Your task to perform on an android device: Open calendar and show me the third week of next month Image 0: 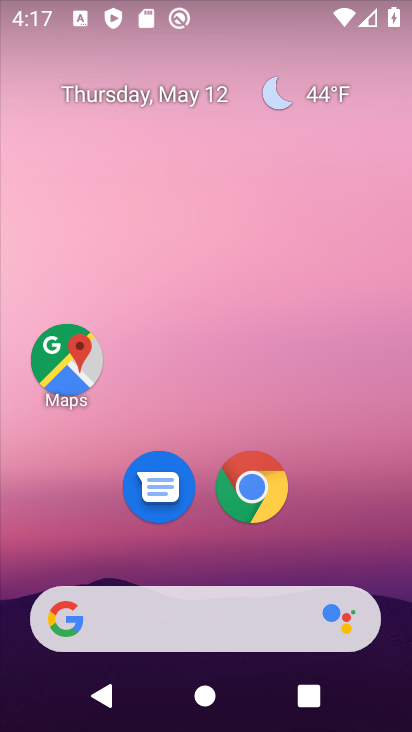
Step 0: drag from (268, 558) to (307, 127)
Your task to perform on an android device: Open calendar and show me the third week of next month Image 1: 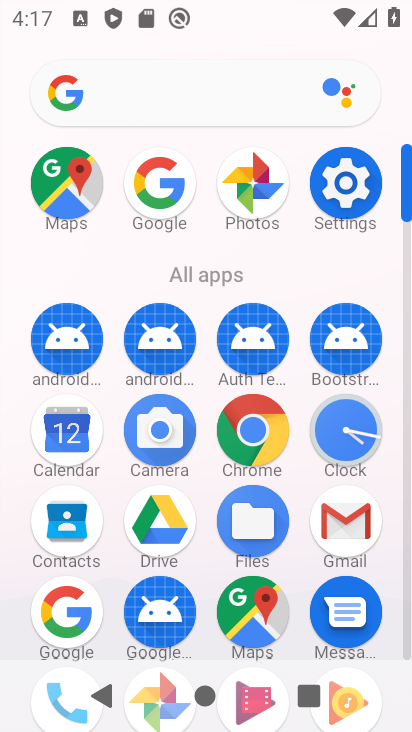
Step 1: click (60, 442)
Your task to perform on an android device: Open calendar and show me the third week of next month Image 2: 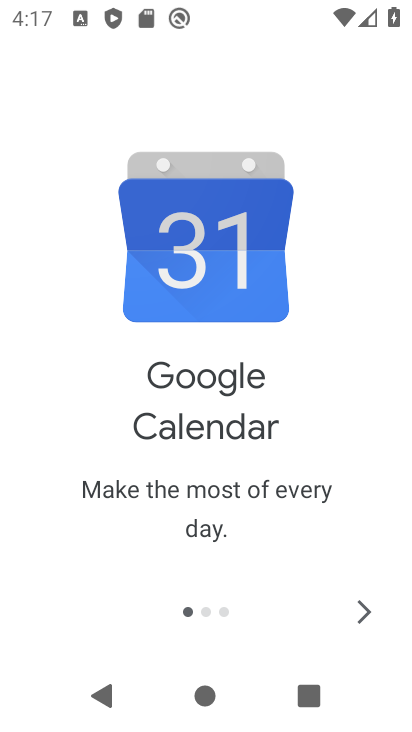
Step 2: click (371, 601)
Your task to perform on an android device: Open calendar and show me the third week of next month Image 3: 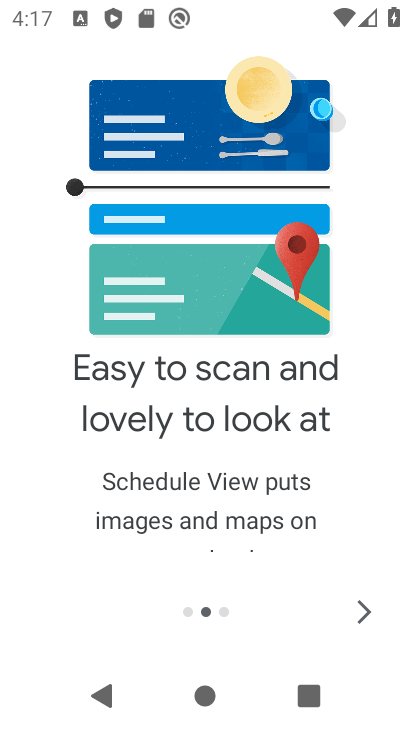
Step 3: click (371, 601)
Your task to perform on an android device: Open calendar and show me the third week of next month Image 4: 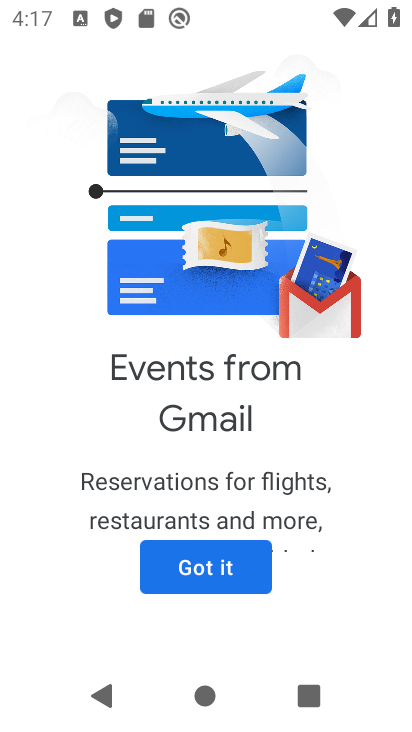
Step 4: click (206, 586)
Your task to perform on an android device: Open calendar and show me the third week of next month Image 5: 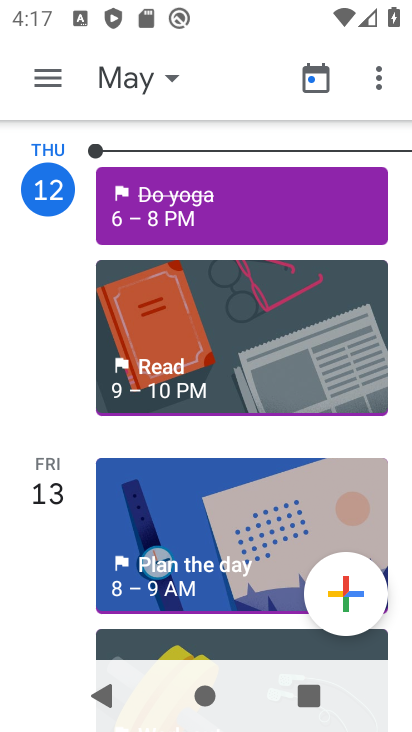
Step 5: click (140, 76)
Your task to perform on an android device: Open calendar and show me the third week of next month Image 6: 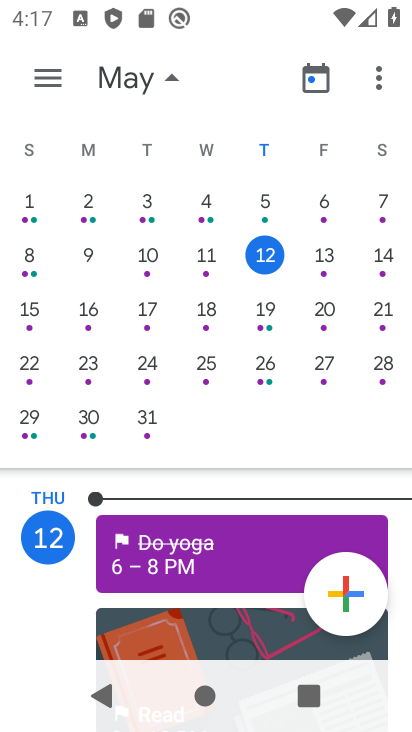
Step 6: drag from (406, 325) to (2, 17)
Your task to perform on an android device: Open calendar and show me the third week of next month Image 7: 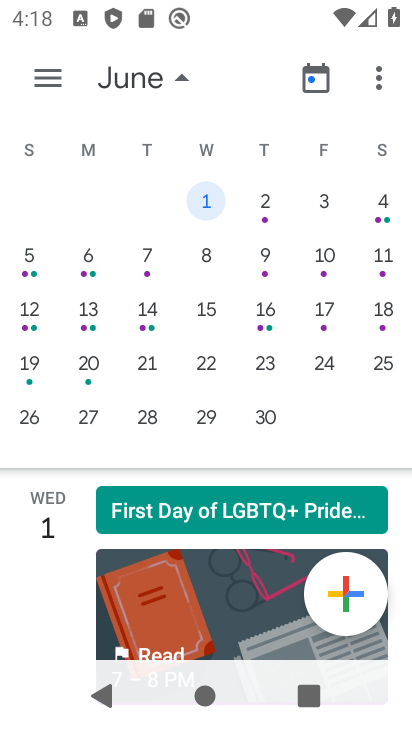
Step 7: drag from (383, 295) to (9, 122)
Your task to perform on an android device: Open calendar and show me the third week of next month Image 8: 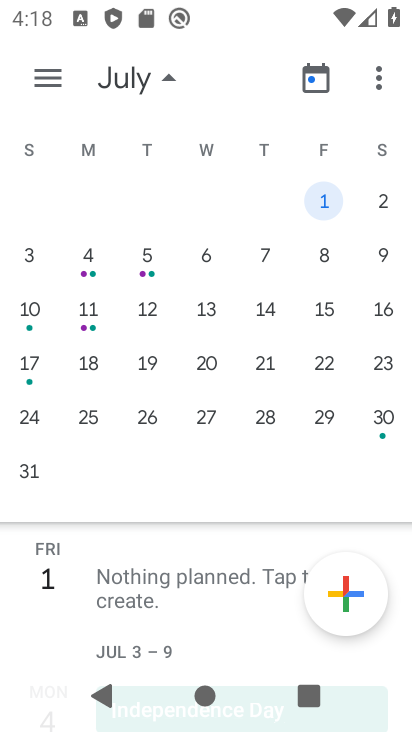
Step 8: click (54, 79)
Your task to perform on an android device: Open calendar and show me the third week of next month Image 9: 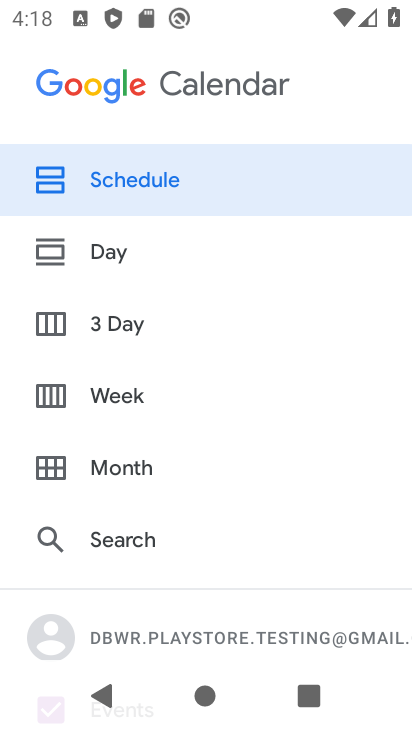
Step 9: click (145, 401)
Your task to perform on an android device: Open calendar and show me the third week of next month Image 10: 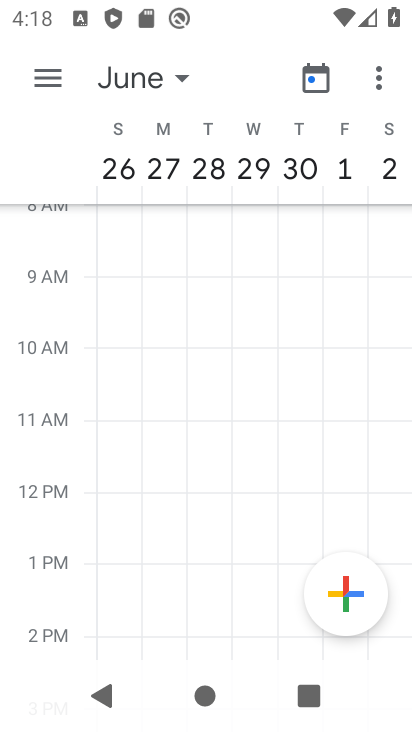
Step 10: task complete